Your task to perform on an android device: remove spam from my inbox in the gmail app Image 0: 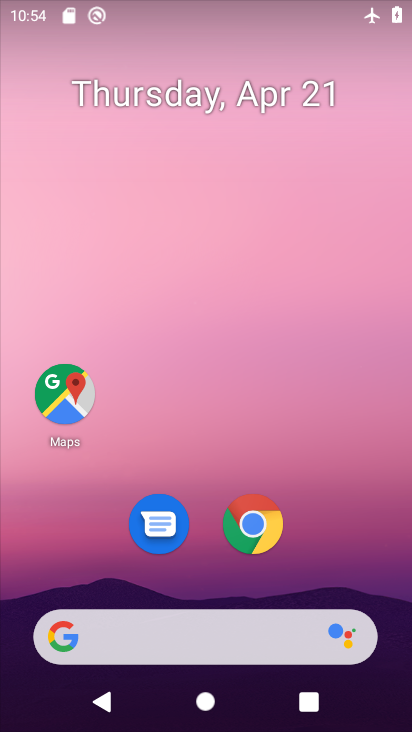
Step 0: drag from (324, 533) to (323, 124)
Your task to perform on an android device: remove spam from my inbox in the gmail app Image 1: 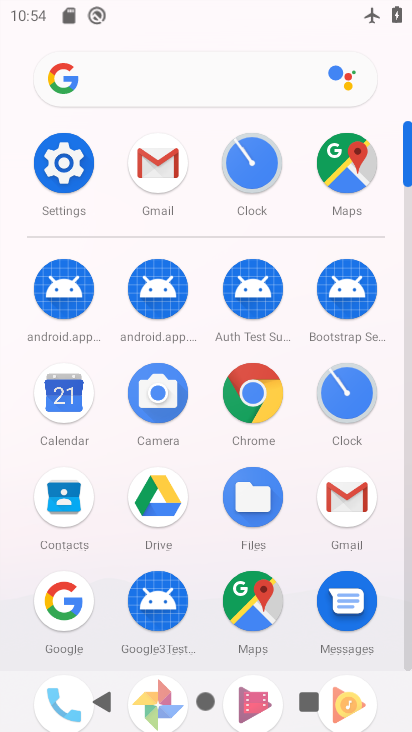
Step 1: click (161, 169)
Your task to perform on an android device: remove spam from my inbox in the gmail app Image 2: 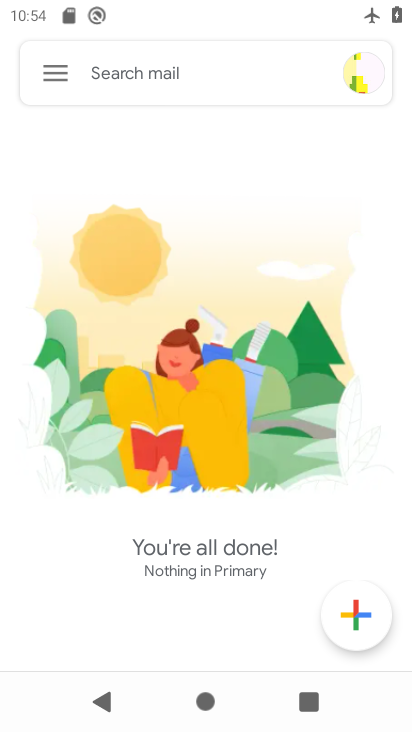
Step 2: click (61, 70)
Your task to perform on an android device: remove spam from my inbox in the gmail app Image 3: 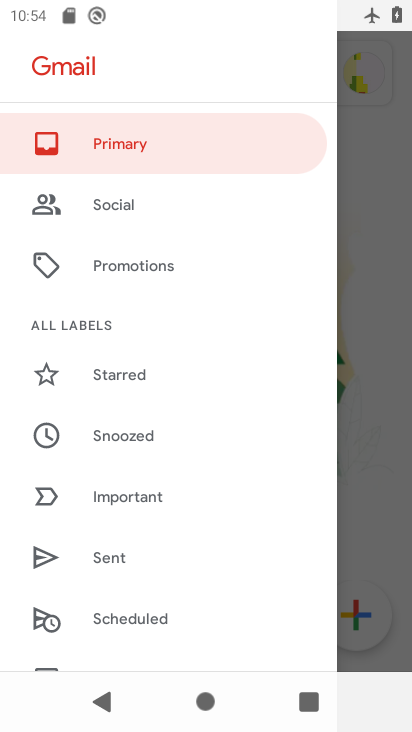
Step 3: drag from (177, 565) to (228, 115)
Your task to perform on an android device: remove spam from my inbox in the gmail app Image 4: 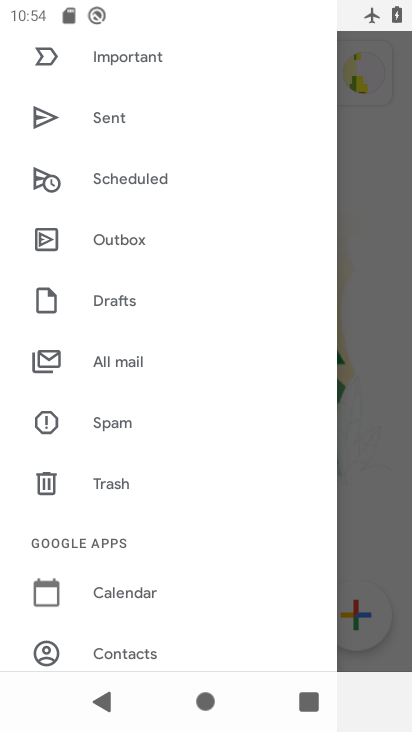
Step 4: click (132, 414)
Your task to perform on an android device: remove spam from my inbox in the gmail app Image 5: 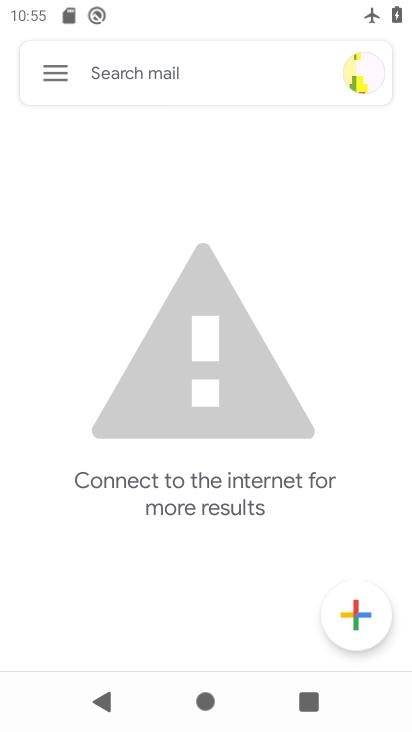
Step 5: task complete